Your task to perform on an android device: Go to Google Image 0: 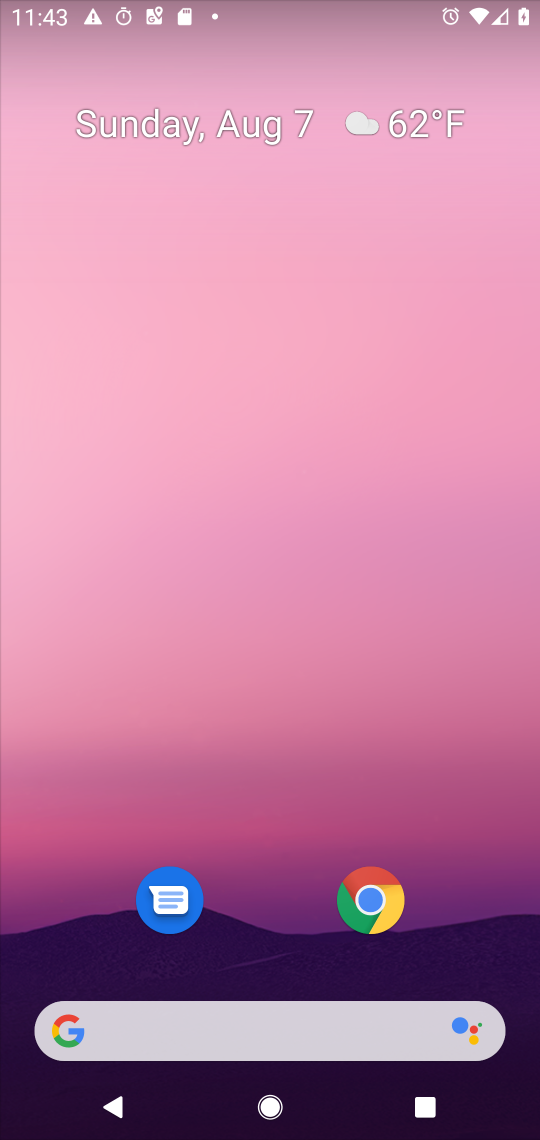
Step 0: press home button
Your task to perform on an android device: Go to Google Image 1: 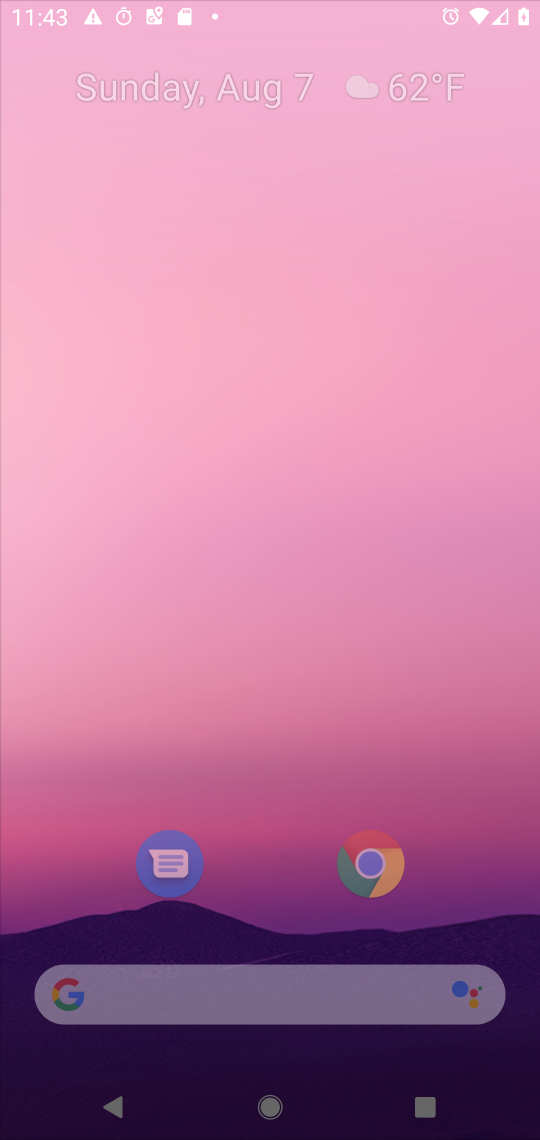
Step 1: drag from (277, 950) to (309, 197)
Your task to perform on an android device: Go to Google Image 2: 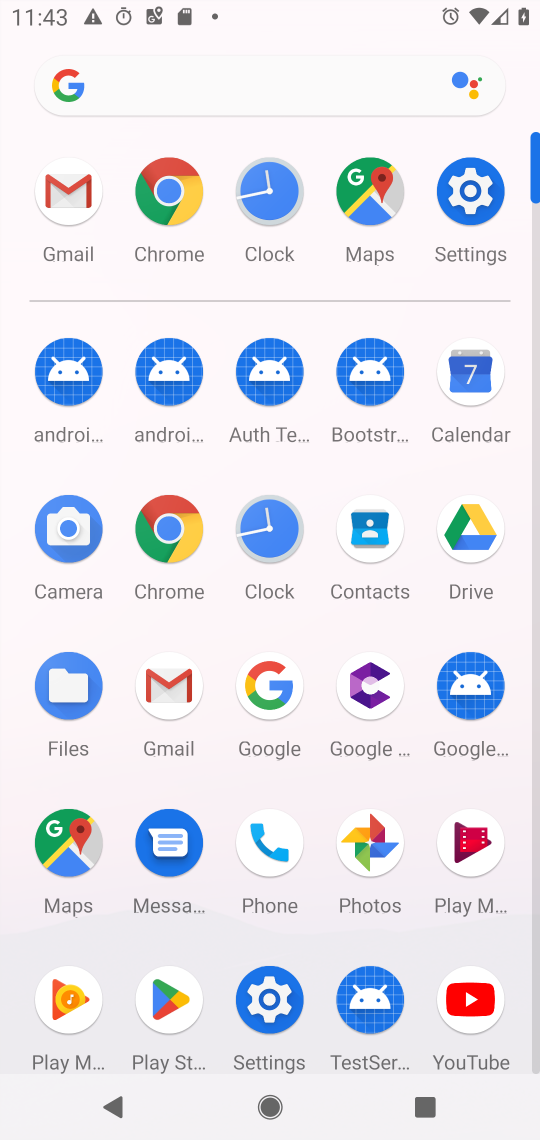
Step 2: click (268, 672)
Your task to perform on an android device: Go to Google Image 3: 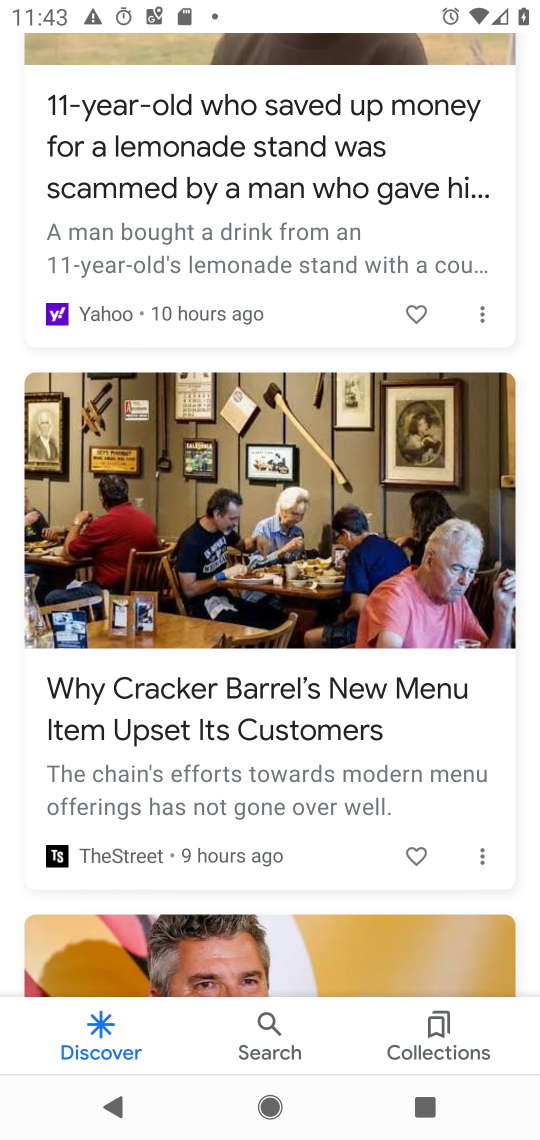
Step 3: click (430, 1027)
Your task to perform on an android device: Go to Google Image 4: 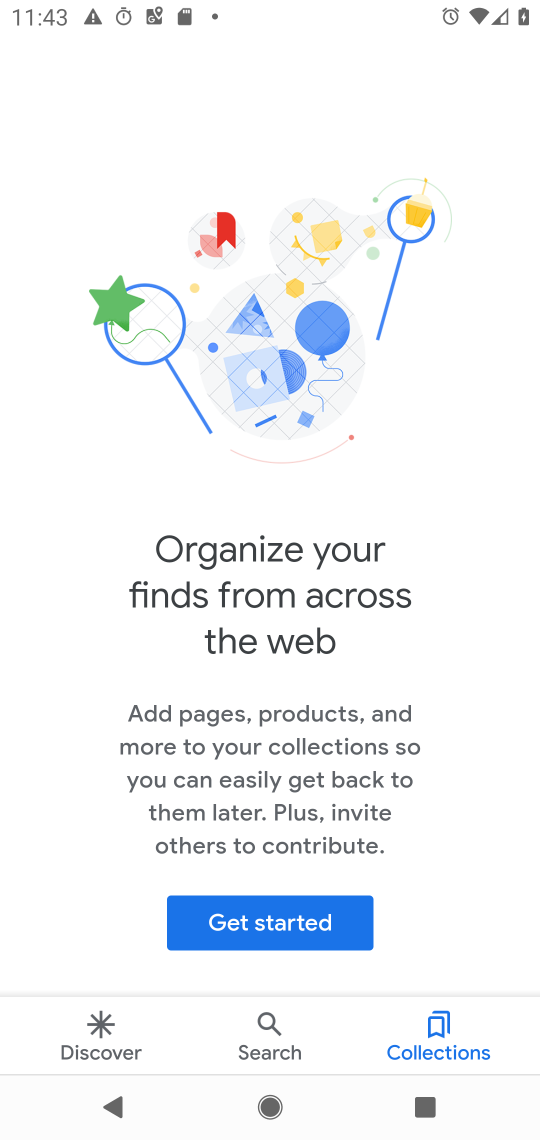
Step 4: click (93, 1030)
Your task to perform on an android device: Go to Google Image 5: 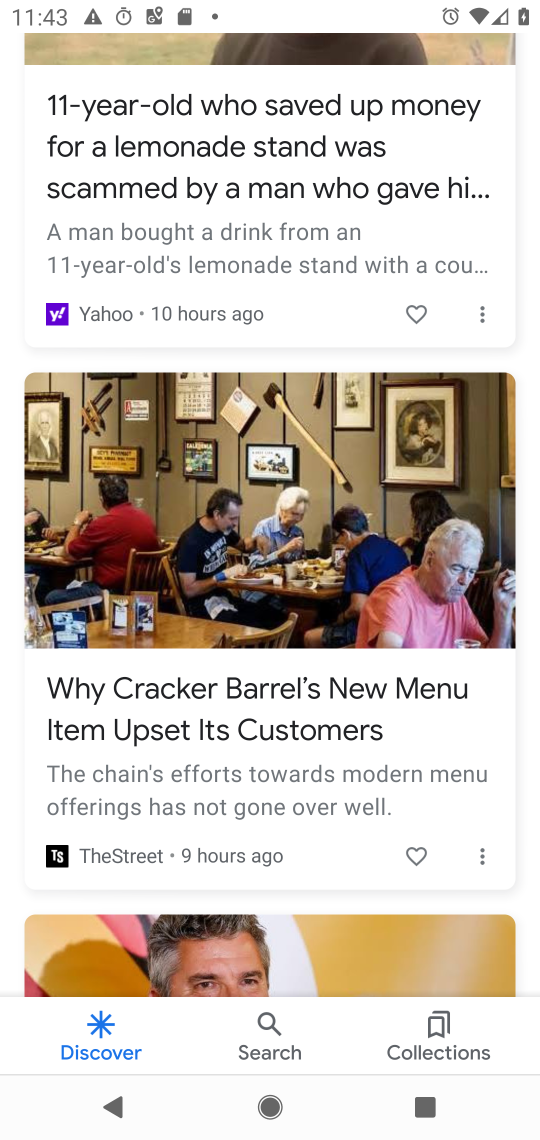
Step 5: task complete